Your task to perform on an android device: Go to accessibility settings Image 0: 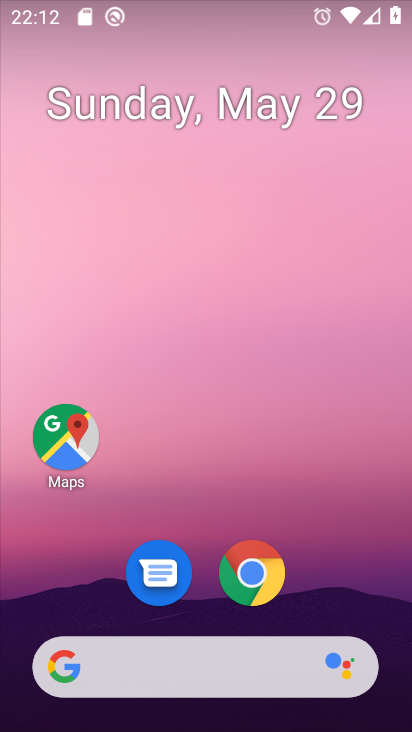
Step 0: drag from (225, 477) to (275, 0)
Your task to perform on an android device: Go to accessibility settings Image 1: 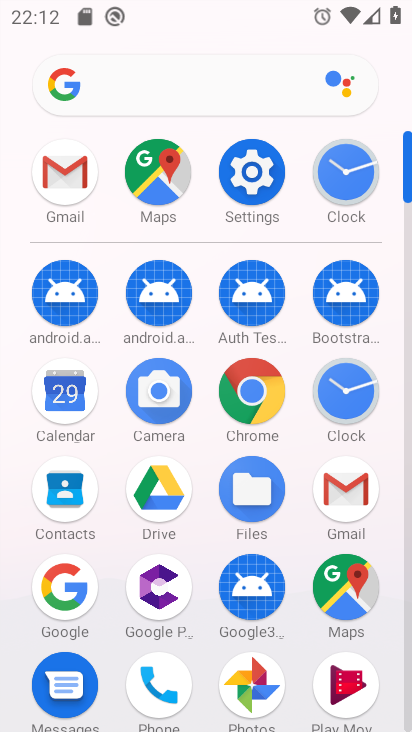
Step 1: click (255, 188)
Your task to perform on an android device: Go to accessibility settings Image 2: 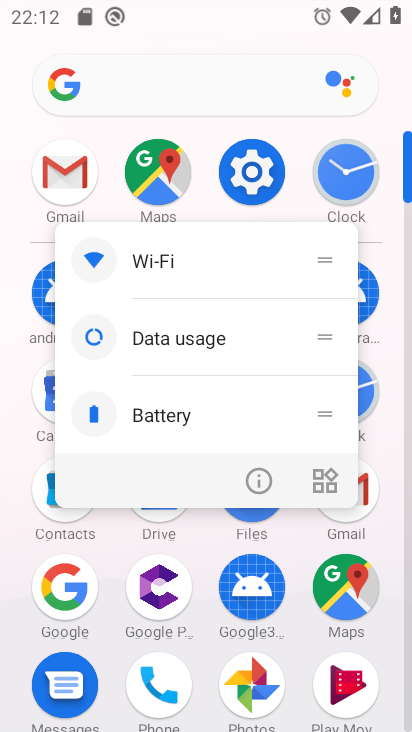
Step 2: click (259, 161)
Your task to perform on an android device: Go to accessibility settings Image 3: 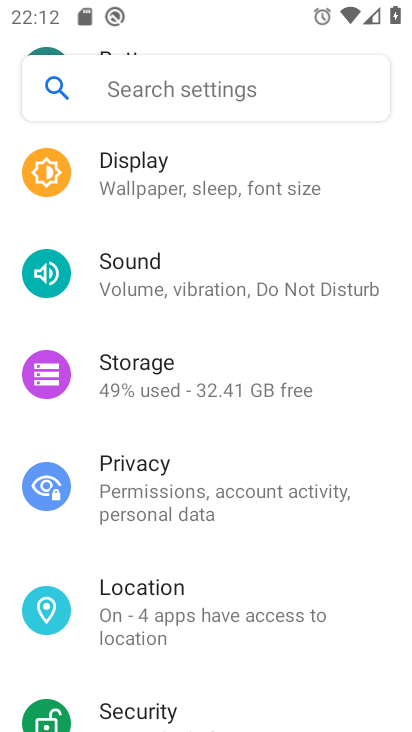
Step 3: drag from (228, 556) to (289, 88)
Your task to perform on an android device: Go to accessibility settings Image 4: 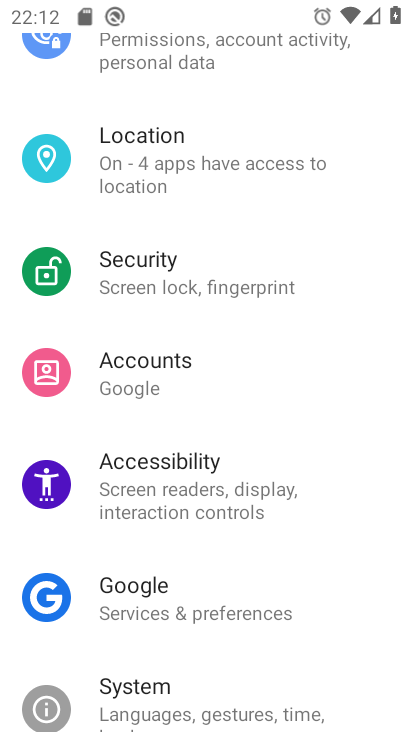
Step 4: click (205, 480)
Your task to perform on an android device: Go to accessibility settings Image 5: 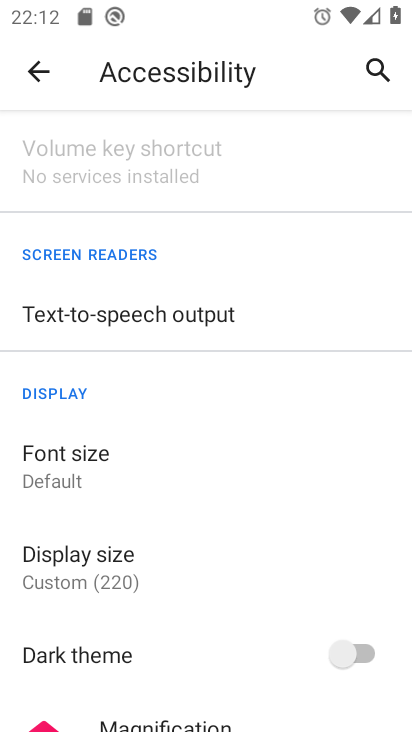
Step 5: task complete